Your task to perform on an android device: set the timer Image 0: 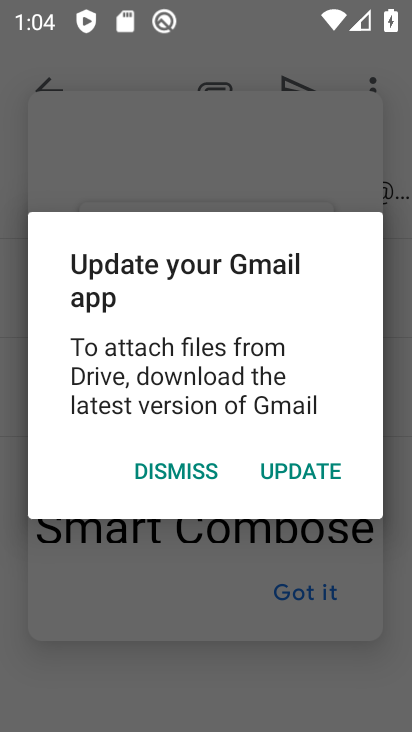
Step 0: press home button
Your task to perform on an android device: set the timer Image 1: 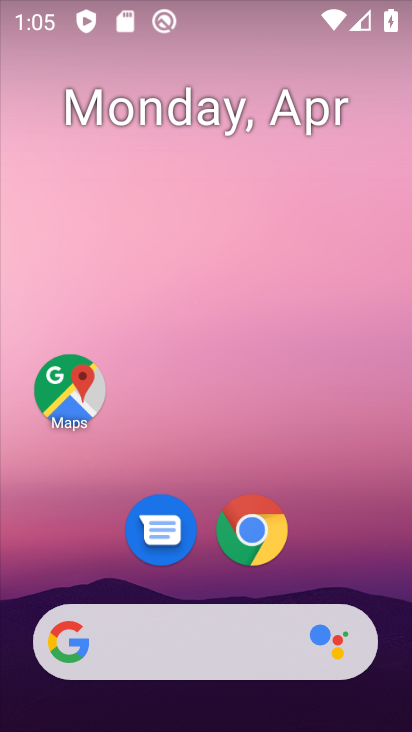
Step 1: drag from (82, 521) to (79, 166)
Your task to perform on an android device: set the timer Image 2: 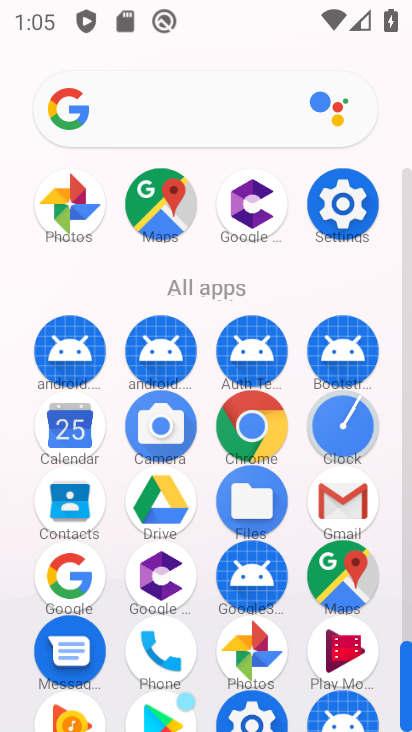
Step 2: click (334, 438)
Your task to perform on an android device: set the timer Image 3: 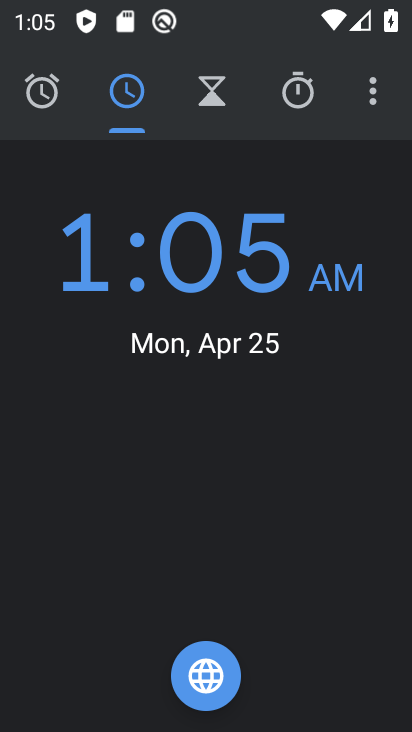
Step 3: click (208, 93)
Your task to perform on an android device: set the timer Image 4: 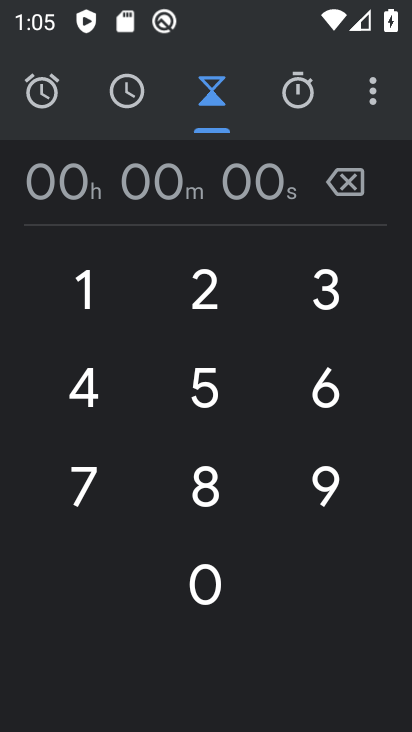
Step 4: click (92, 295)
Your task to perform on an android device: set the timer Image 5: 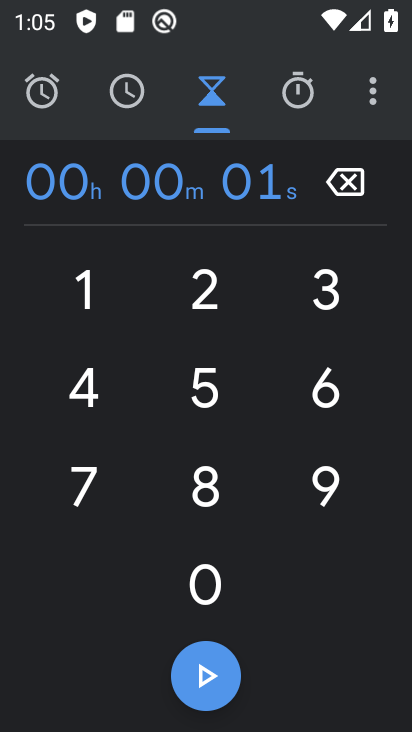
Step 5: click (92, 295)
Your task to perform on an android device: set the timer Image 6: 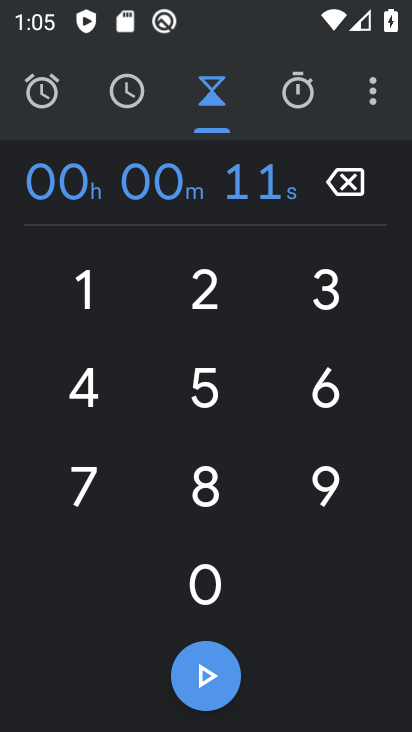
Step 6: click (92, 295)
Your task to perform on an android device: set the timer Image 7: 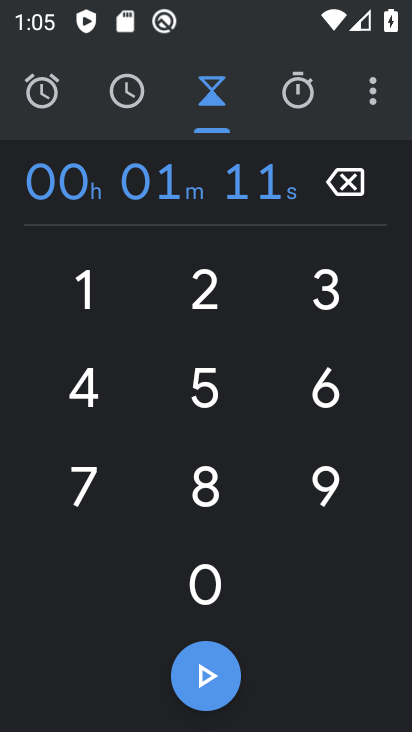
Step 7: click (92, 295)
Your task to perform on an android device: set the timer Image 8: 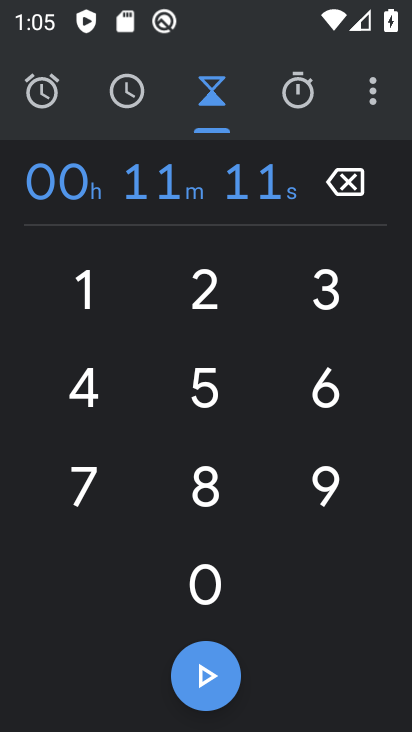
Step 8: click (92, 295)
Your task to perform on an android device: set the timer Image 9: 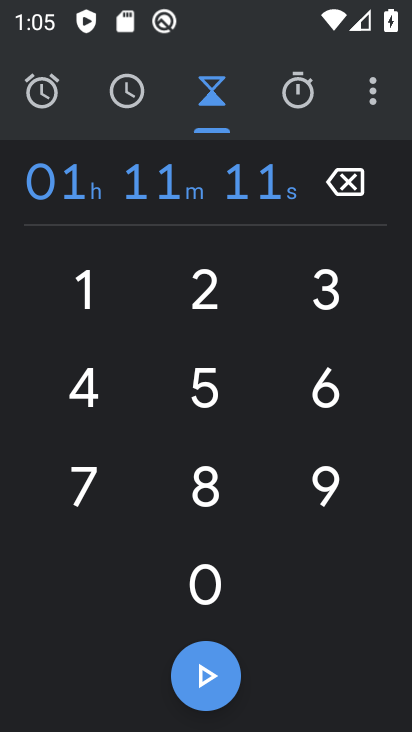
Step 9: task complete